Your task to perform on an android device: Set the phone to "Do not disturb". Image 0: 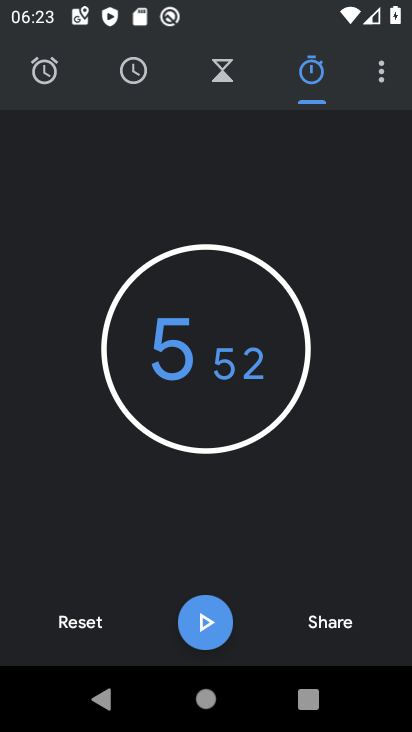
Step 0: press home button
Your task to perform on an android device: Set the phone to "Do not disturb". Image 1: 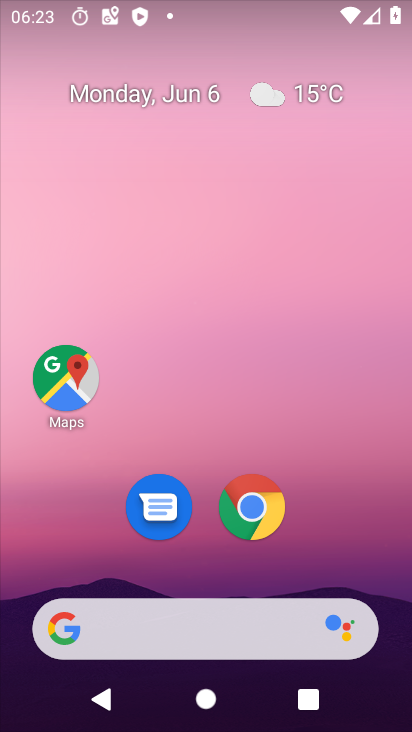
Step 1: drag from (322, 569) to (261, 4)
Your task to perform on an android device: Set the phone to "Do not disturb". Image 2: 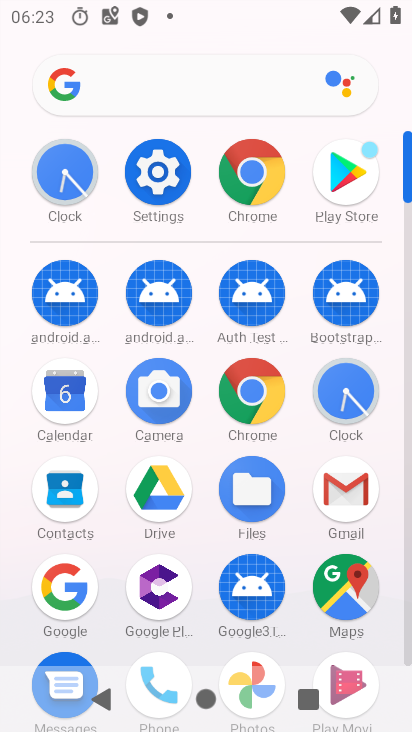
Step 2: click (112, 174)
Your task to perform on an android device: Set the phone to "Do not disturb". Image 3: 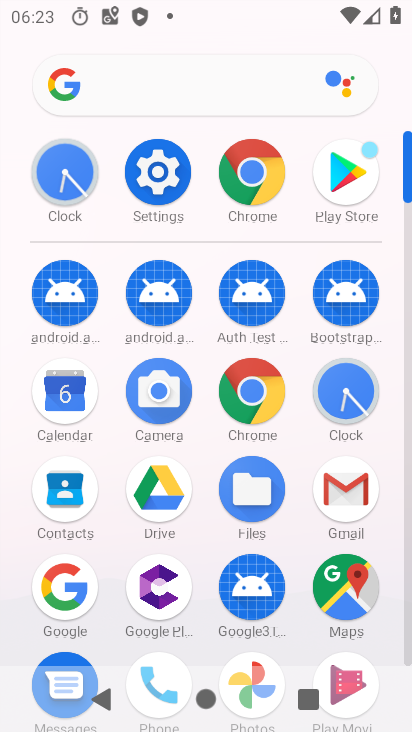
Step 3: click (140, 184)
Your task to perform on an android device: Set the phone to "Do not disturb". Image 4: 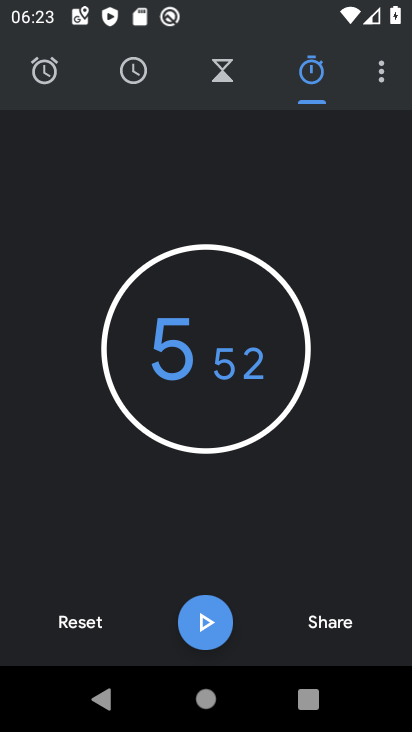
Step 4: press back button
Your task to perform on an android device: Set the phone to "Do not disturb". Image 5: 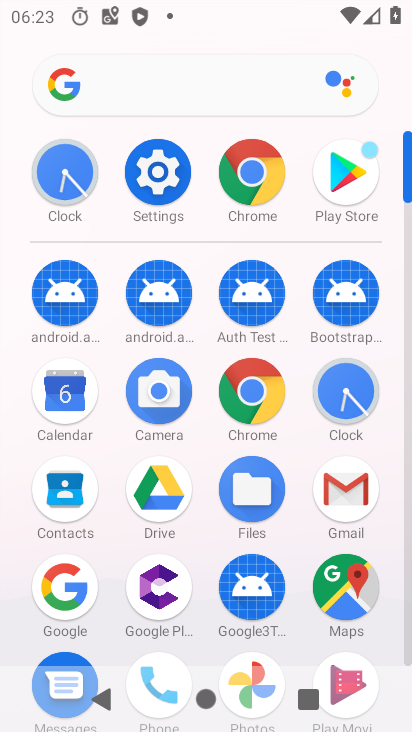
Step 5: click (152, 195)
Your task to perform on an android device: Set the phone to "Do not disturb". Image 6: 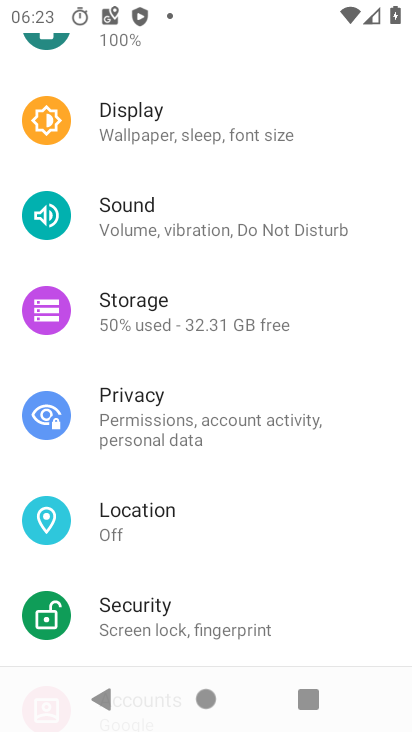
Step 6: click (123, 210)
Your task to perform on an android device: Set the phone to "Do not disturb". Image 7: 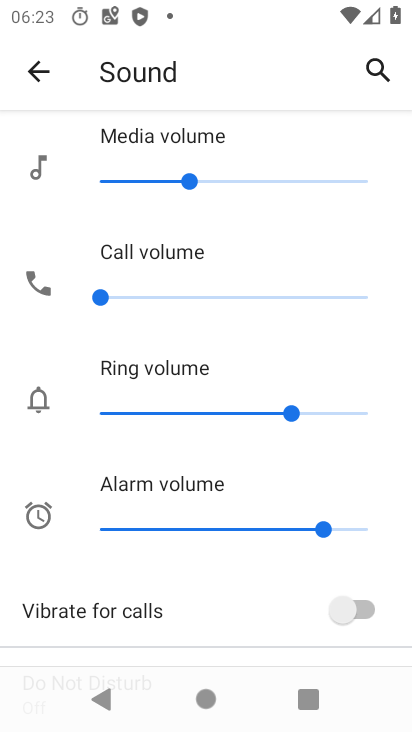
Step 7: drag from (214, 578) to (199, 220)
Your task to perform on an android device: Set the phone to "Do not disturb". Image 8: 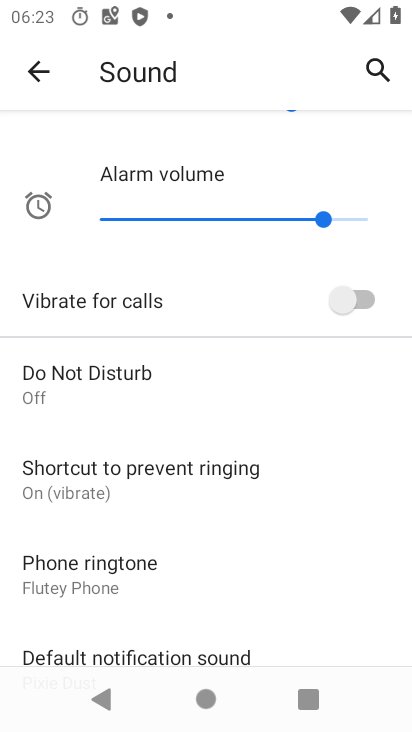
Step 8: click (117, 397)
Your task to perform on an android device: Set the phone to "Do not disturb". Image 9: 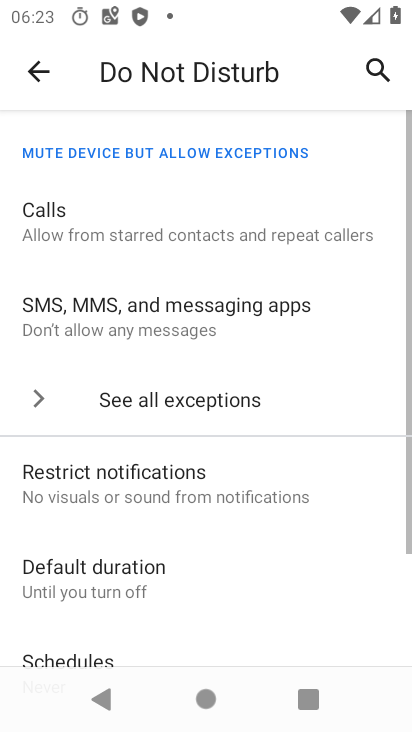
Step 9: drag from (174, 532) to (199, 104)
Your task to perform on an android device: Set the phone to "Do not disturb". Image 10: 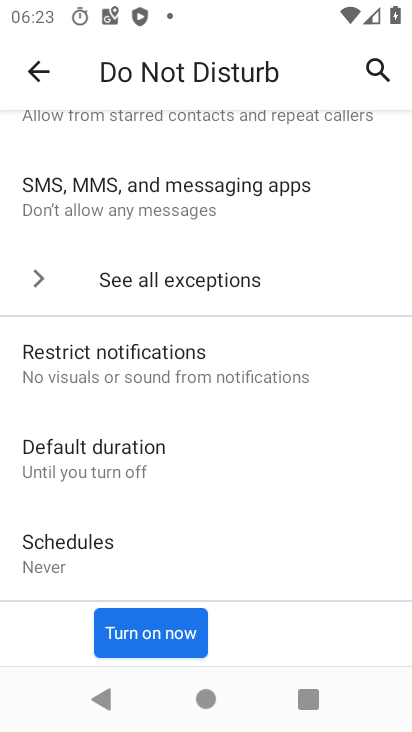
Step 10: click (160, 650)
Your task to perform on an android device: Set the phone to "Do not disturb". Image 11: 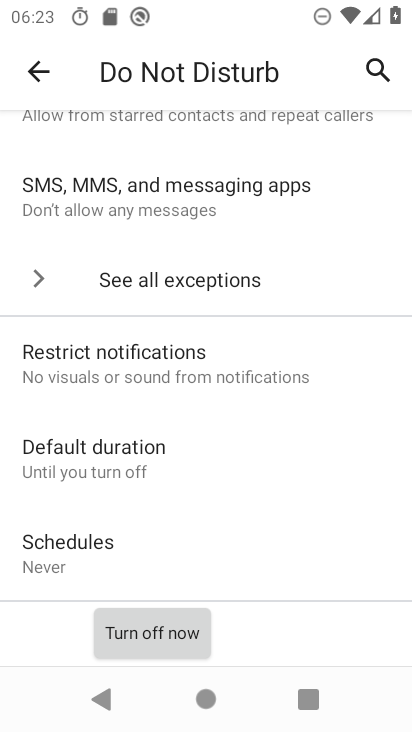
Step 11: task complete